Your task to perform on an android device: Go to eBay Image 0: 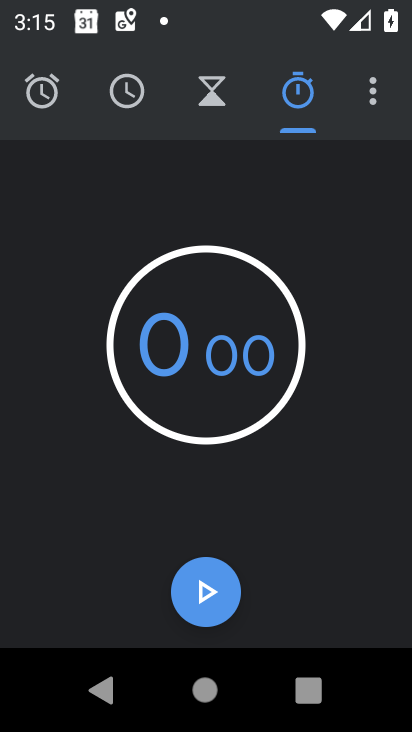
Step 0: press home button
Your task to perform on an android device: Go to eBay Image 1: 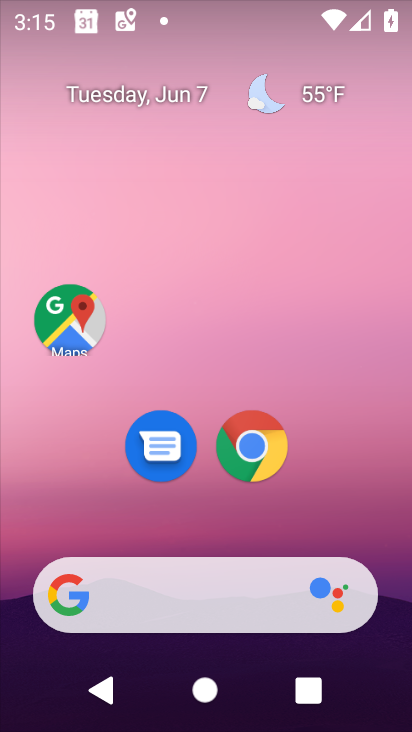
Step 1: click (259, 457)
Your task to perform on an android device: Go to eBay Image 2: 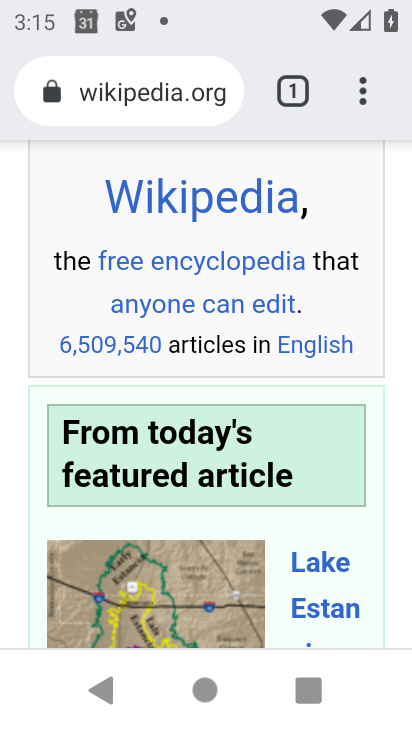
Step 2: click (132, 103)
Your task to perform on an android device: Go to eBay Image 3: 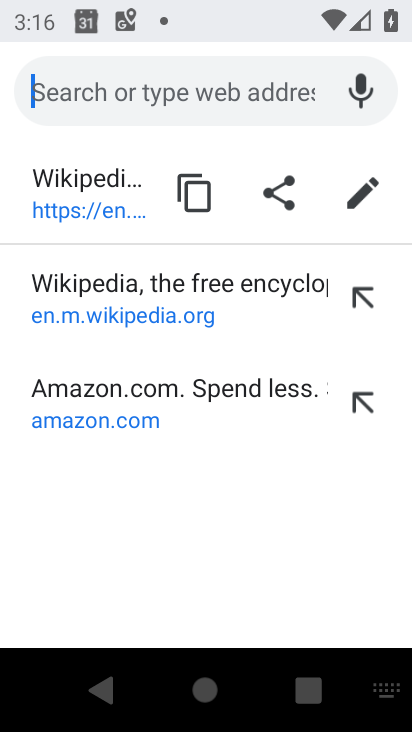
Step 3: type "eBay"
Your task to perform on an android device: Go to eBay Image 4: 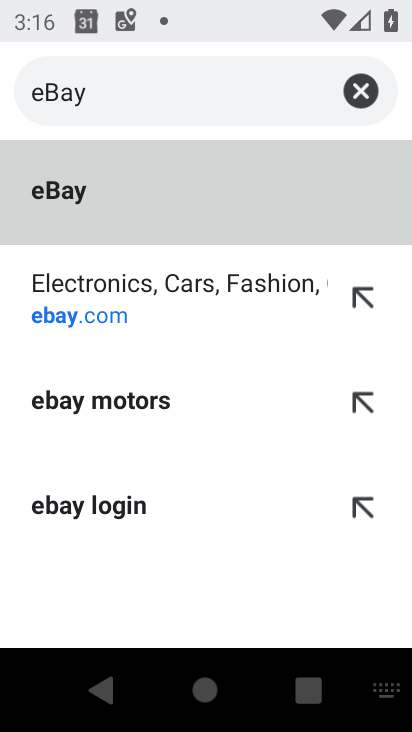
Step 4: click (136, 212)
Your task to perform on an android device: Go to eBay Image 5: 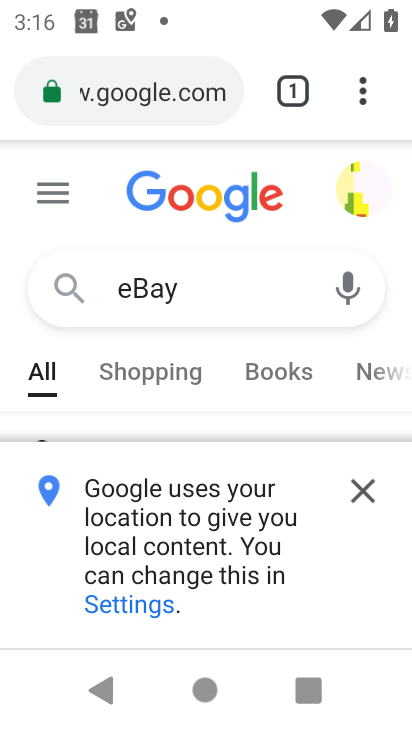
Step 5: click (359, 477)
Your task to perform on an android device: Go to eBay Image 6: 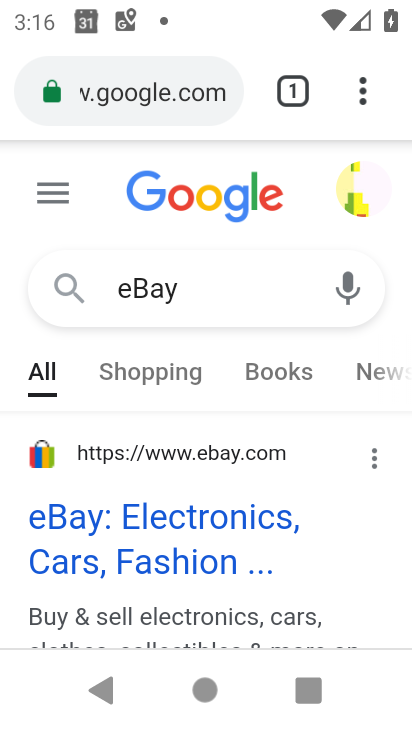
Step 6: task complete